Your task to perform on an android device: change alarm snooze length Image 0: 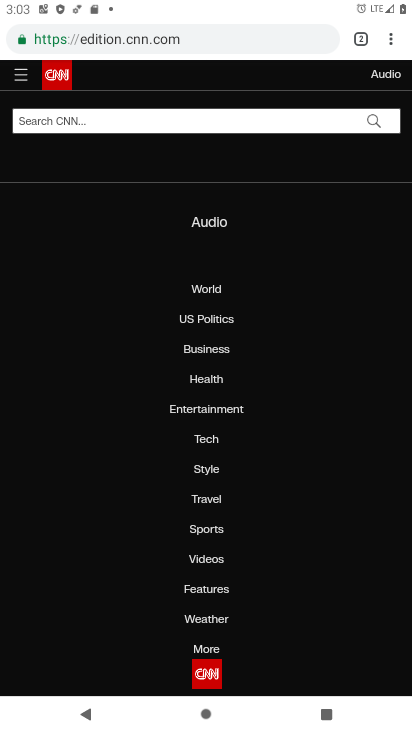
Step 0: press home button
Your task to perform on an android device: change alarm snooze length Image 1: 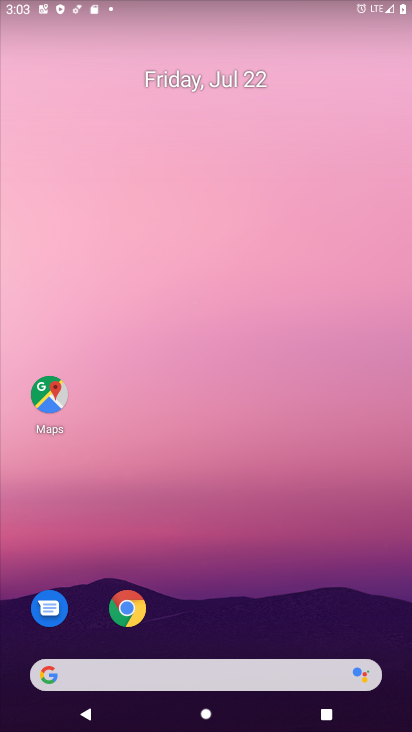
Step 1: drag from (215, 625) to (216, 55)
Your task to perform on an android device: change alarm snooze length Image 2: 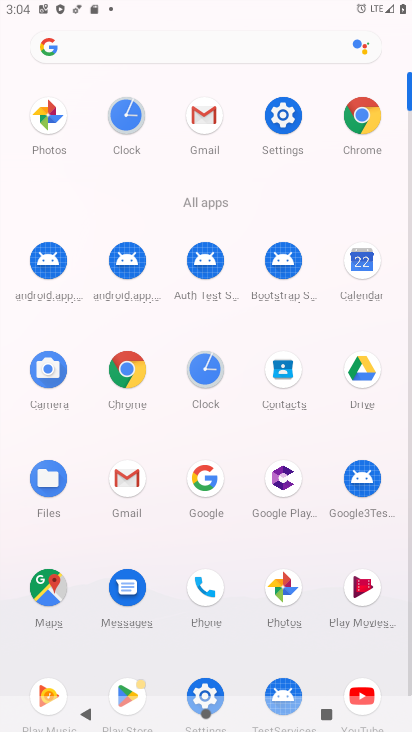
Step 2: click (206, 375)
Your task to perform on an android device: change alarm snooze length Image 3: 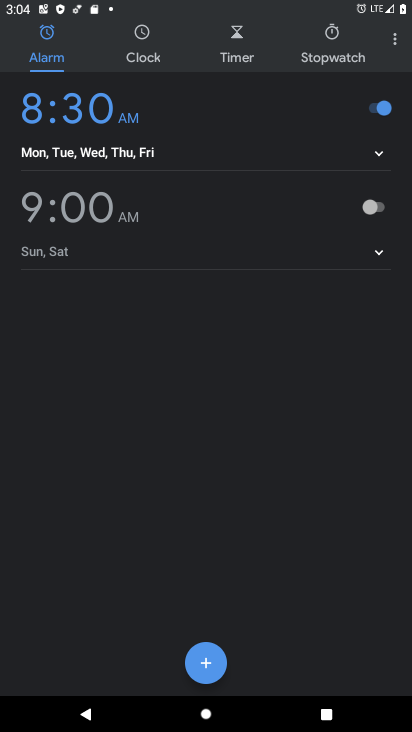
Step 3: click (401, 38)
Your task to perform on an android device: change alarm snooze length Image 4: 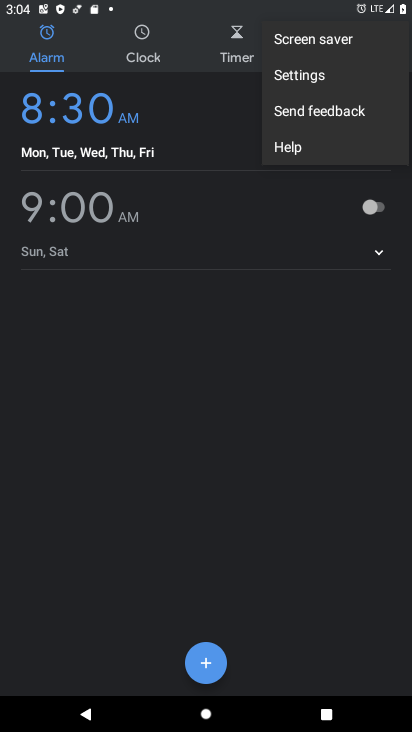
Step 4: click (309, 77)
Your task to perform on an android device: change alarm snooze length Image 5: 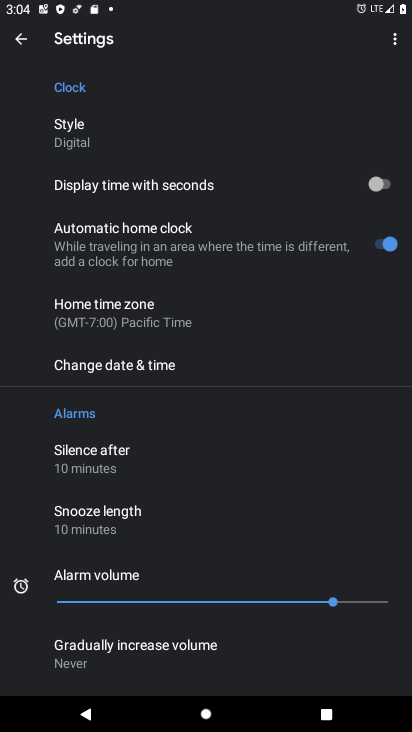
Step 5: click (145, 505)
Your task to perform on an android device: change alarm snooze length Image 6: 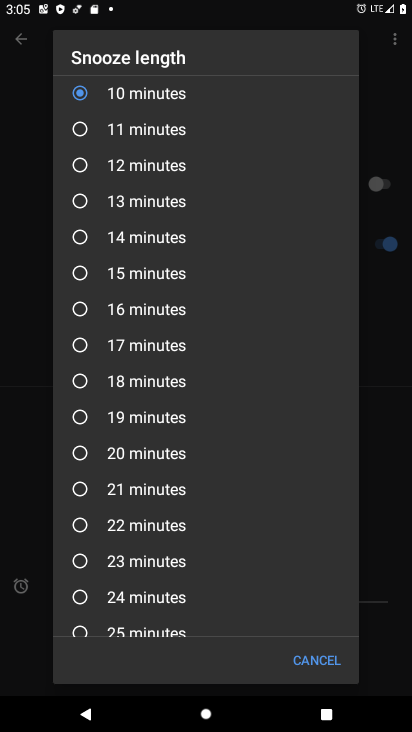
Step 6: click (145, 380)
Your task to perform on an android device: change alarm snooze length Image 7: 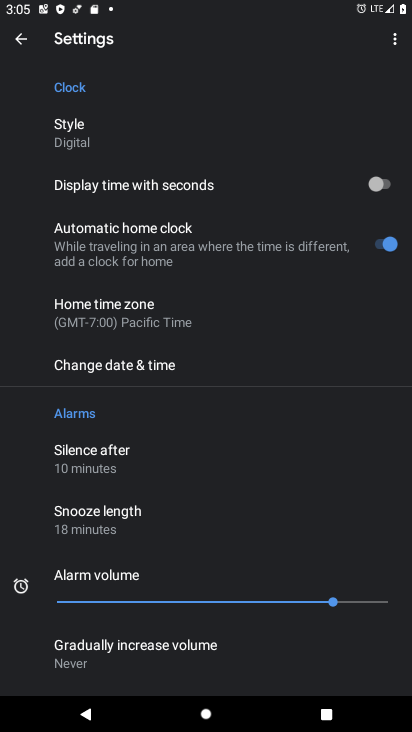
Step 7: task complete